Your task to perform on an android device: Search for vegetarian restaurants on Maps Image 0: 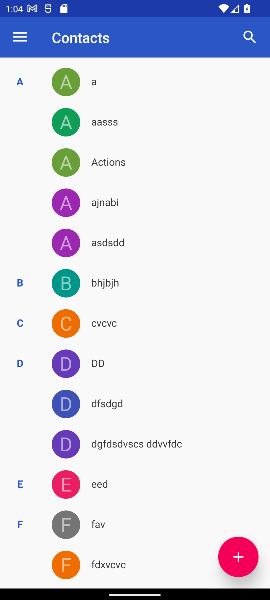
Step 0: press home button
Your task to perform on an android device: Search for vegetarian restaurants on Maps Image 1: 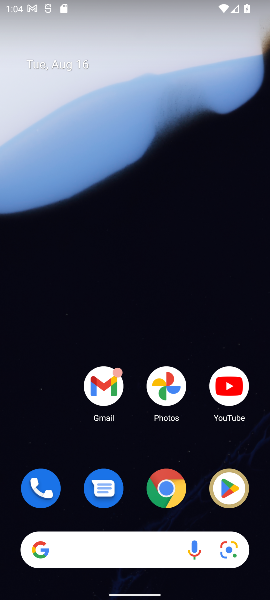
Step 1: drag from (55, 399) to (104, 77)
Your task to perform on an android device: Search for vegetarian restaurants on Maps Image 2: 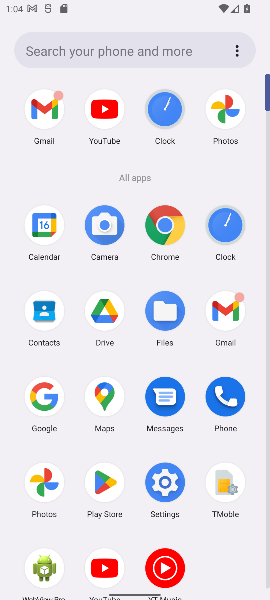
Step 2: click (113, 396)
Your task to perform on an android device: Search for vegetarian restaurants on Maps Image 3: 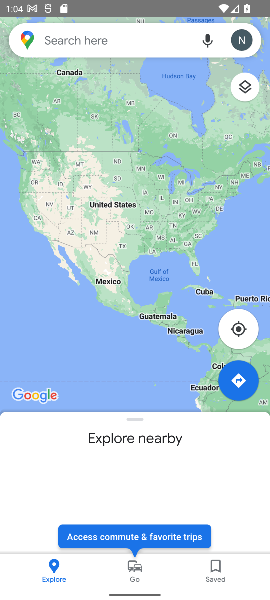
Step 3: task complete